Your task to perform on an android device: Open Amazon Image 0: 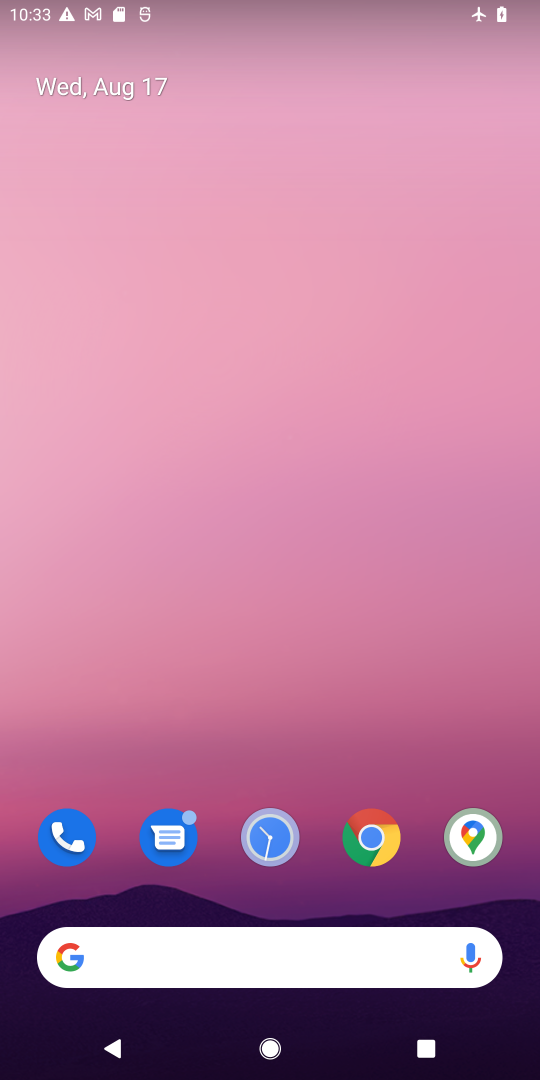
Step 0: drag from (213, 966) to (499, 152)
Your task to perform on an android device: Open Amazon Image 1: 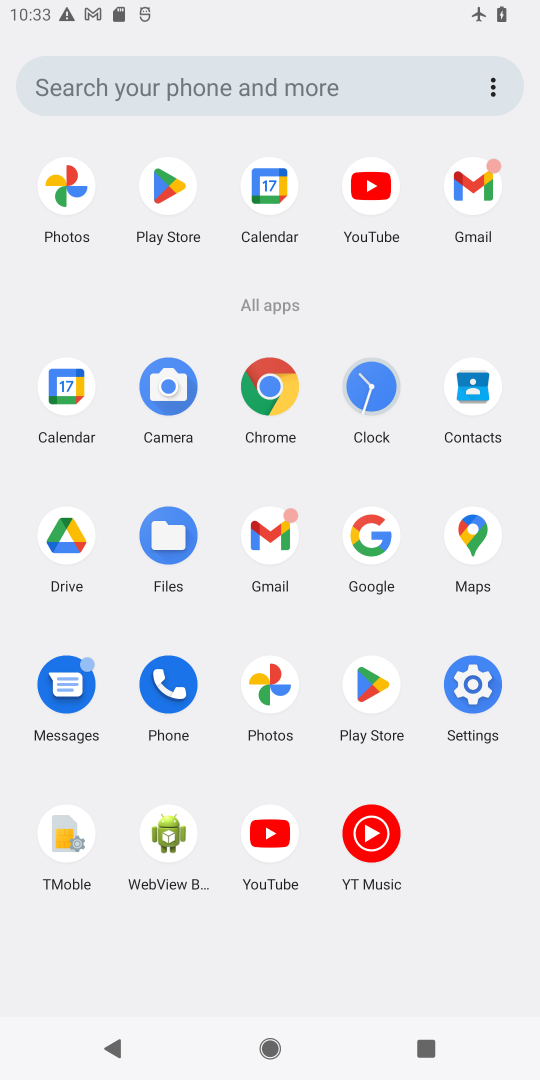
Step 1: click (271, 386)
Your task to perform on an android device: Open Amazon Image 2: 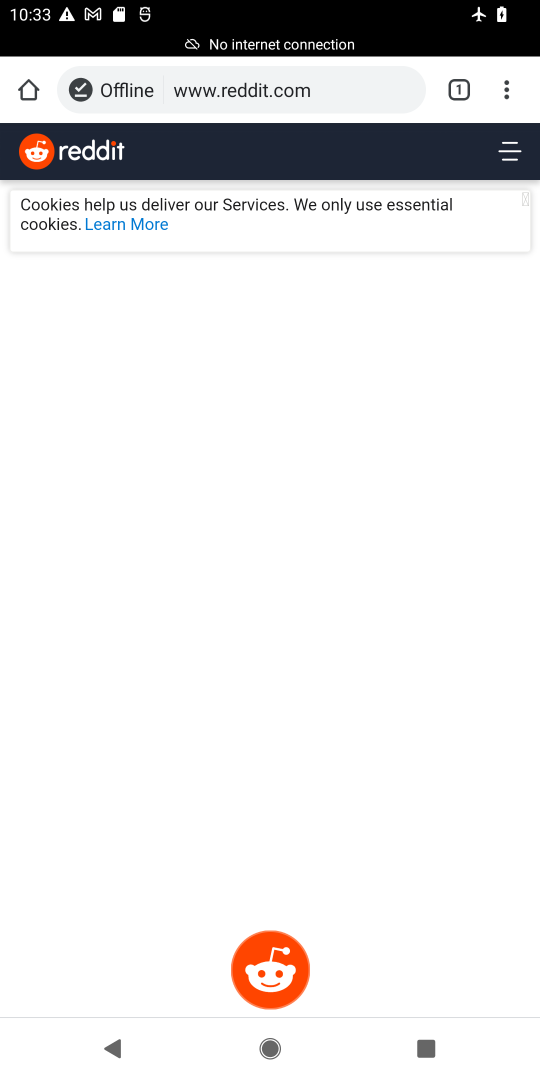
Step 2: click (373, 102)
Your task to perform on an android device: Open Amazon Image 3: 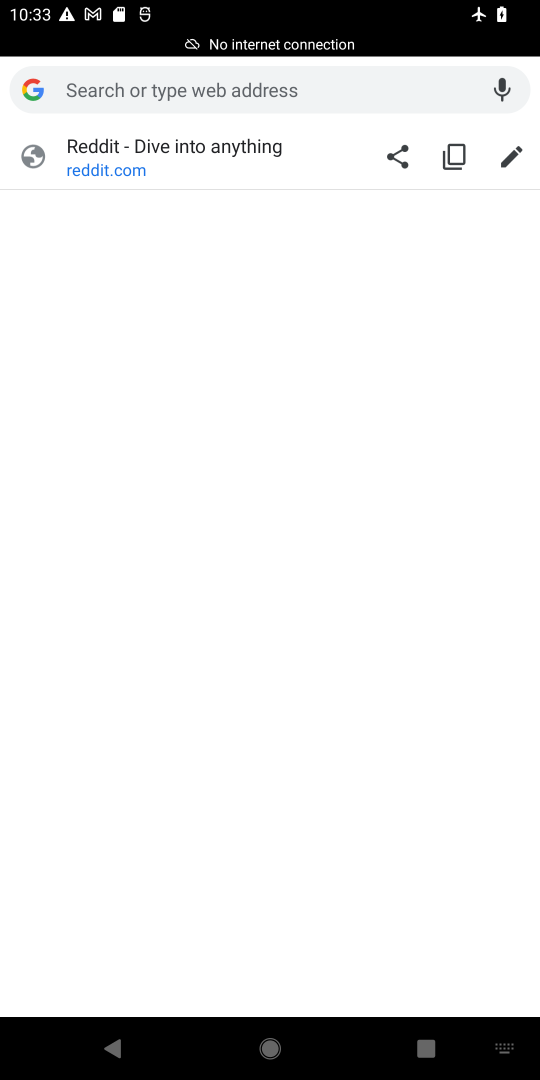
Step 3: type "Amazon"
Your task to perform on an android device: Open Amazon Image 4: 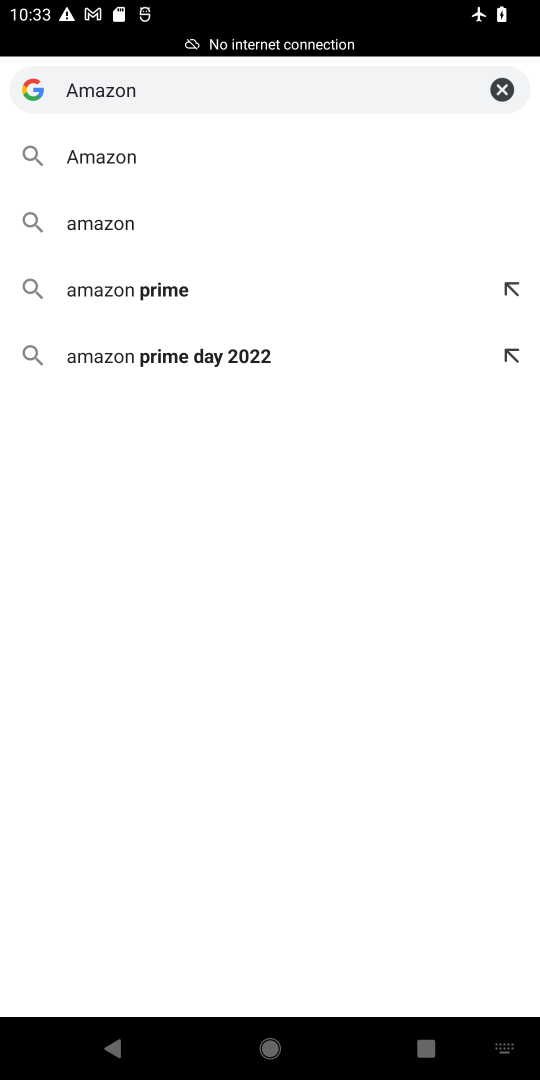
Step 4: click (96, 148)
Your task to perform on an android device: Open Amazon Image 5: 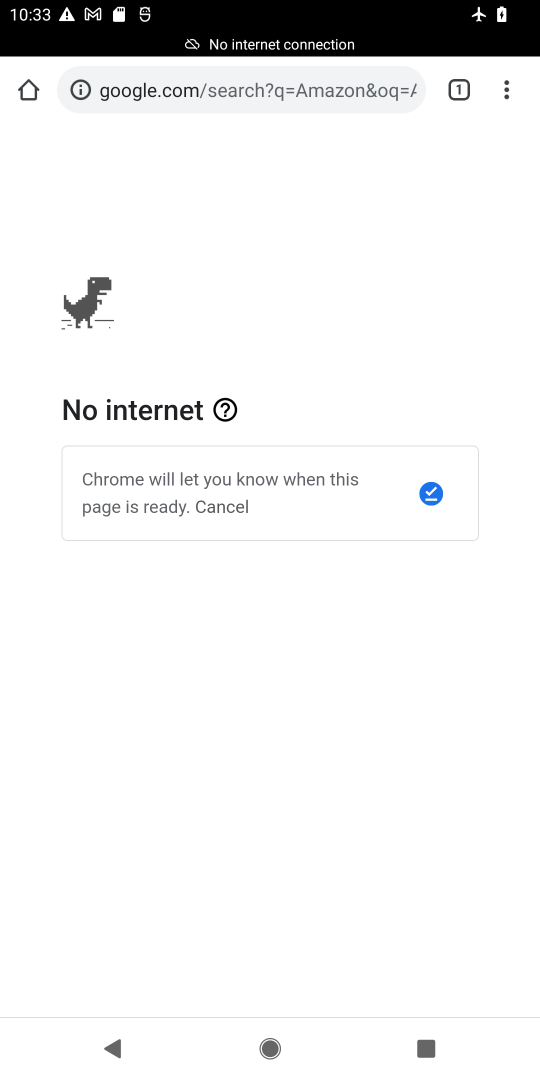
Step 5: task complete